Your task to perform on an android device: turn on bluetooth scan Image 0: 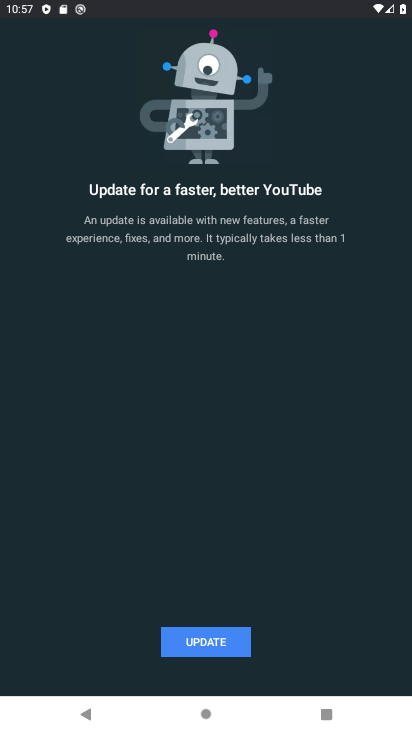
Step 0: press home button
Your task to perform on an android device: turn on bluetooth scan Image 1: 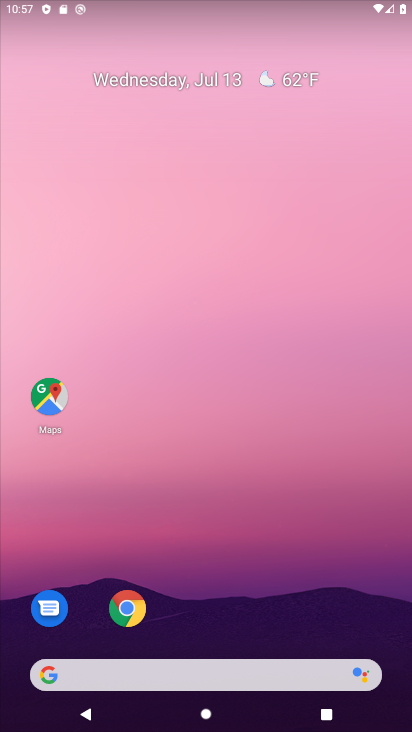
Step 1: drag from (241, 464) to (237, 270)
Your task to perform on an android device: turn on bluetooth scan Image 2: 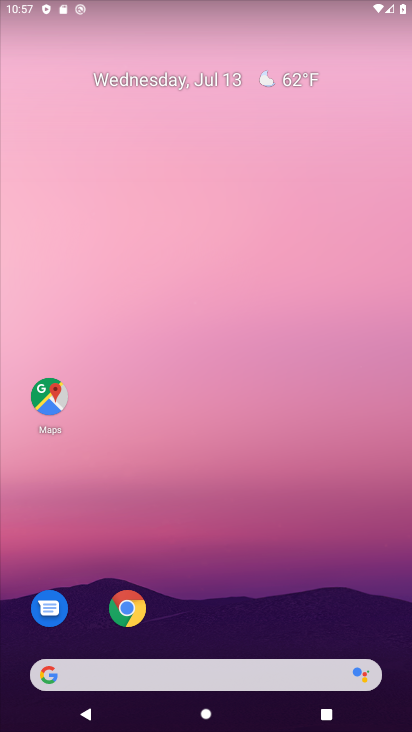
Step 2: drag from (262, 677) to (246, 229)
Your task to perform on an android device: turn on bluetooth scan Image 3: 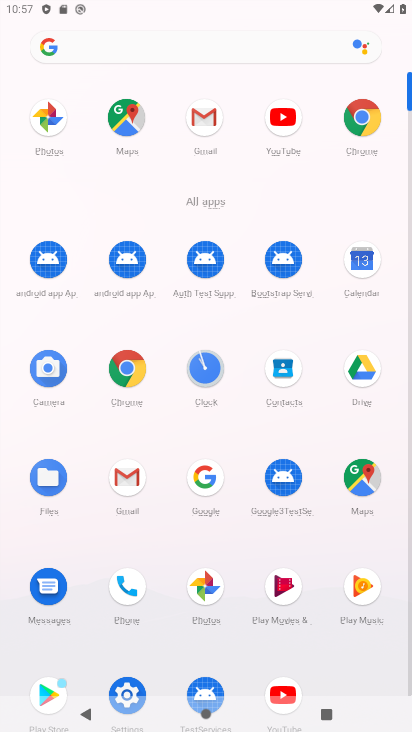
Step 3: click (123, 689)
Your task to perform on an android device: turn on bluetooth scan Image 4: 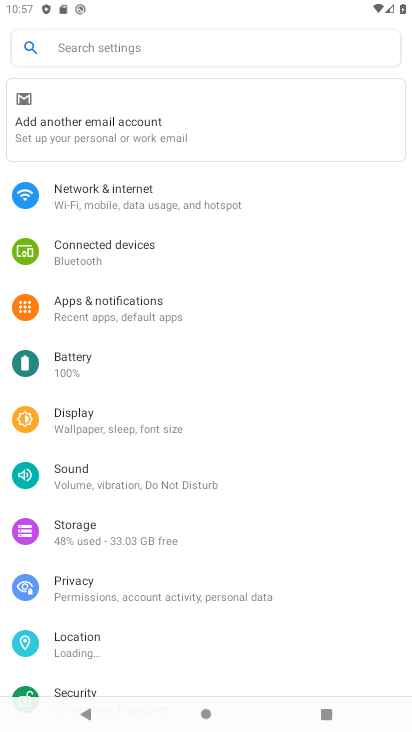
Step 4: click (74, 642)
Your task to perform on an android device: turn on bluetooth scan Image 5: 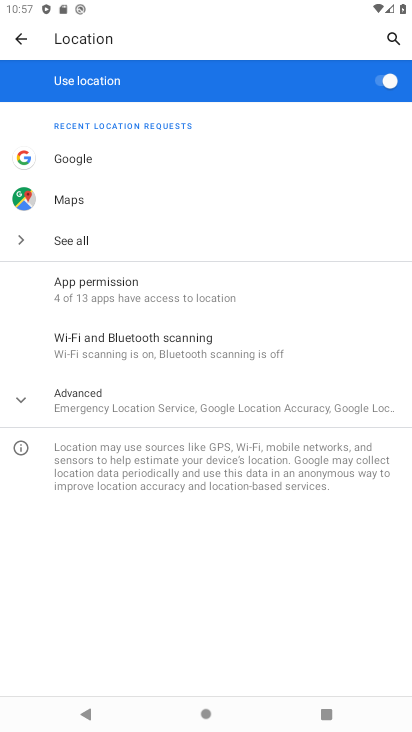
Step 5: click (133, 342)
Your task to perform on an android device: turn on bluetooth scan Image 6: 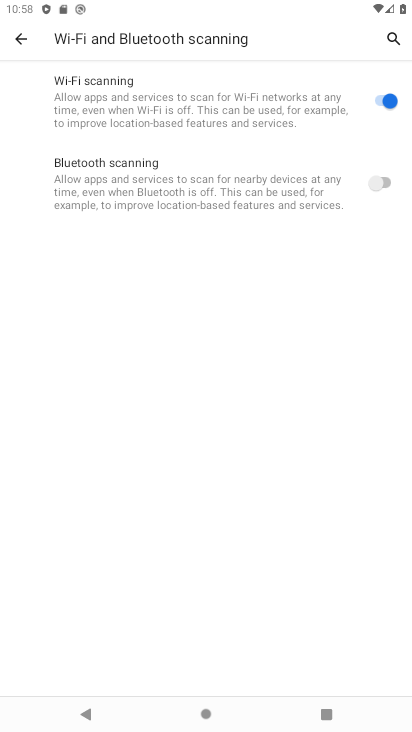
Step 6: click (389, 182)
Your task to perform on an android device: turn on bluetooth scan Image 7: 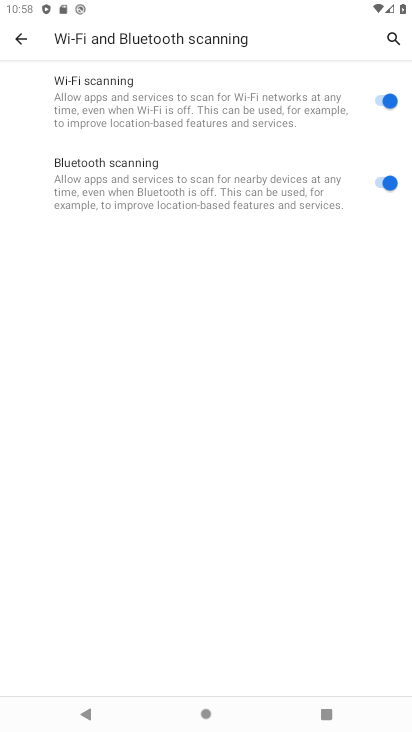
Step 7: task complete